Your task to perform on an android device: Go to eBay Image 0: 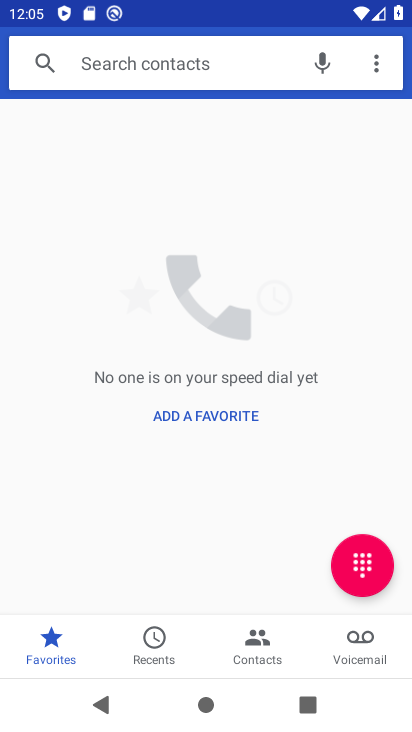
Step 0: press home button
Your task to perform on an android device: Go to eBay Image 1: 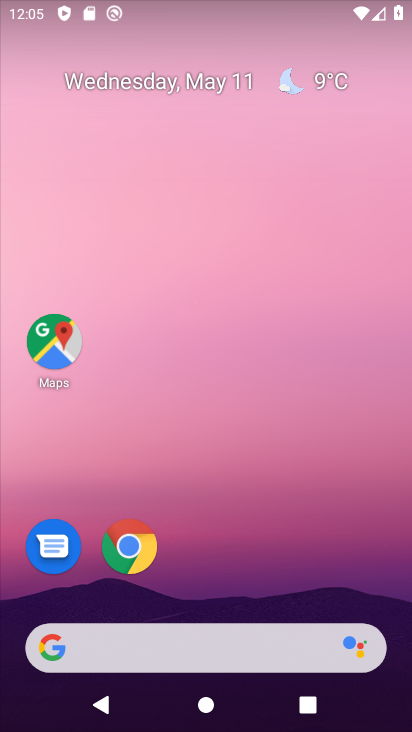
Step 1: drag from (326, 666) to (268, 2)
Your task to perform on an android device: Go to eBay Image 2: 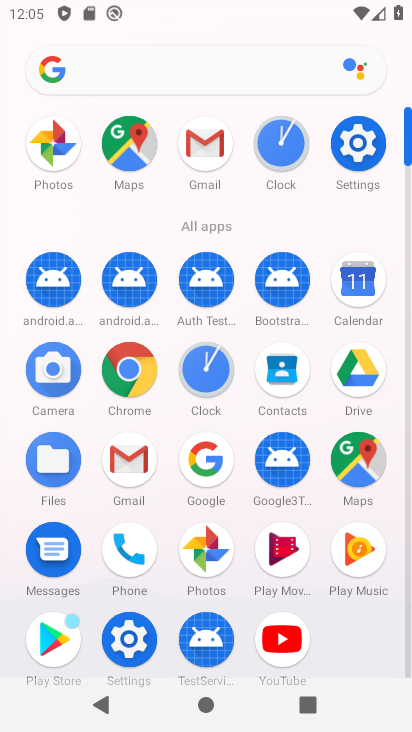
Step 2: click (134, 362)
Your task to perform on an android device: Go to eBay Image 3: 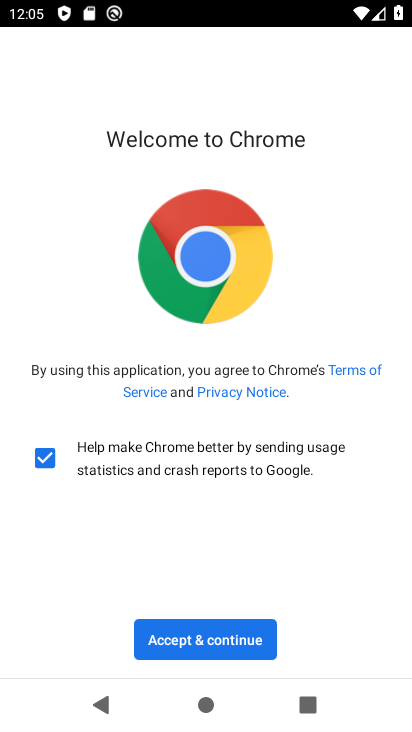
Step 3: click (206, 635)
Your task to perform on an android device: Go to eBay Image 4: 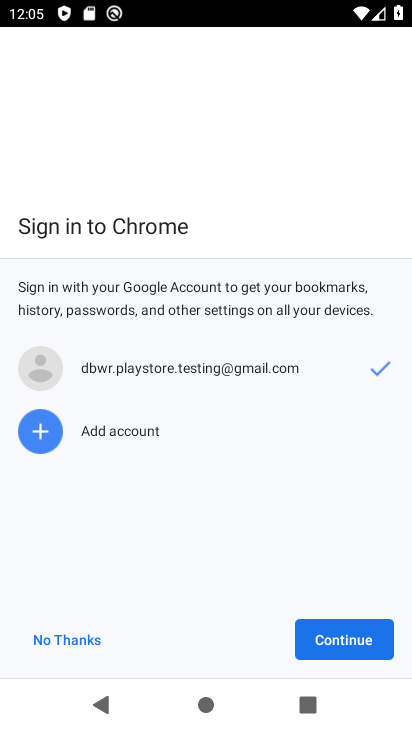
Step 4: click (86, 630)
Your task to perform on an android device: Go to eBay Image 5: 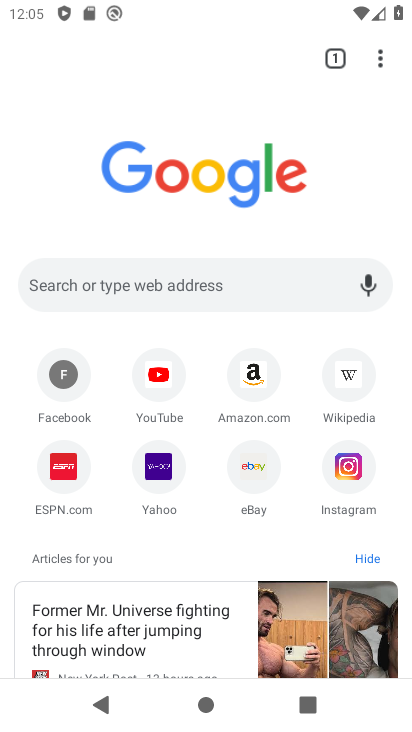
Step 5: click (244, 290)
Your task to perform on an android device: Go to eBay Image 6: 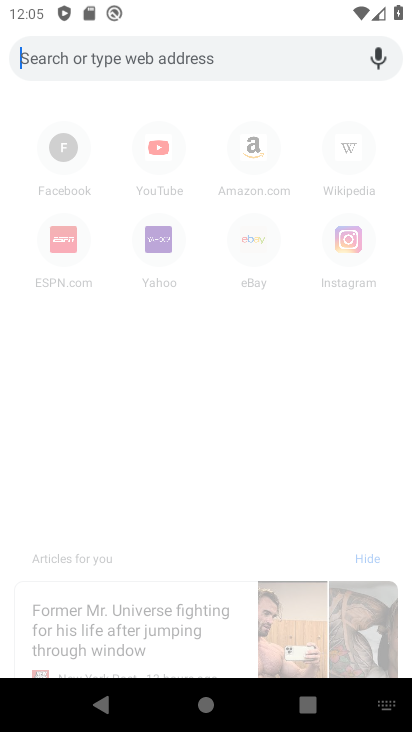
Step 6: type "ebay"
Your task to perform on an android device: Go to eBay Image 7: 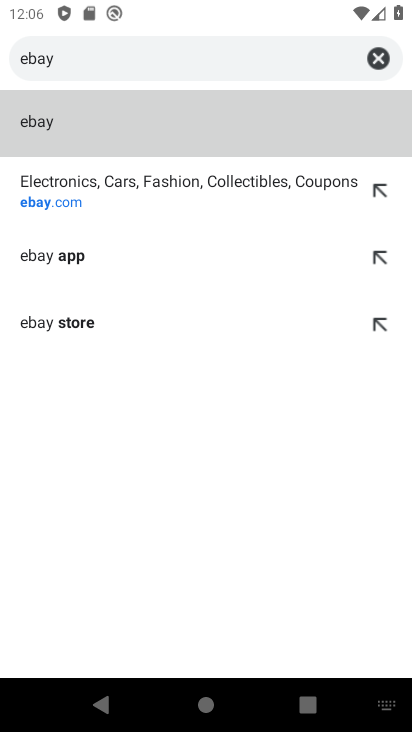
Step 7: click (224, 195)
Your task to perform on an android device: Go to eBay Image 8: 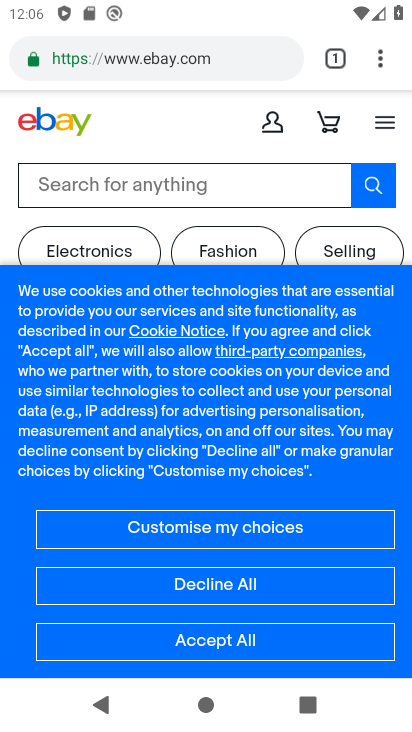
Step 8: task complete